Your task to perform on an android device: Open Google Chrome and click the shortcut for Amazon.com Image 0: 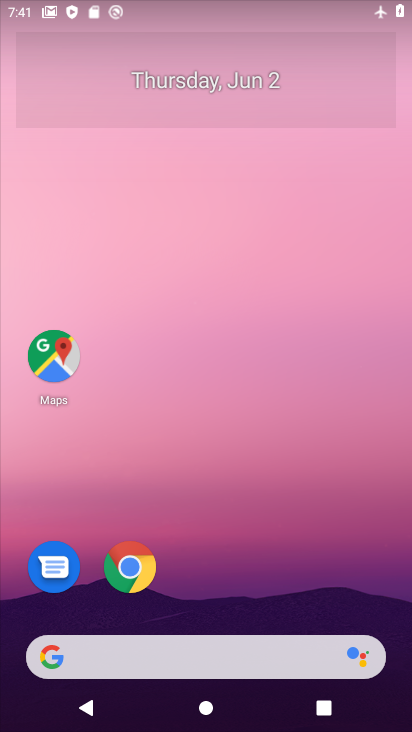
Step 0: click (130, 566)
Your task to perform on an android device: Open Google Chrome and click the shortcut for Amazon.com Image 1: 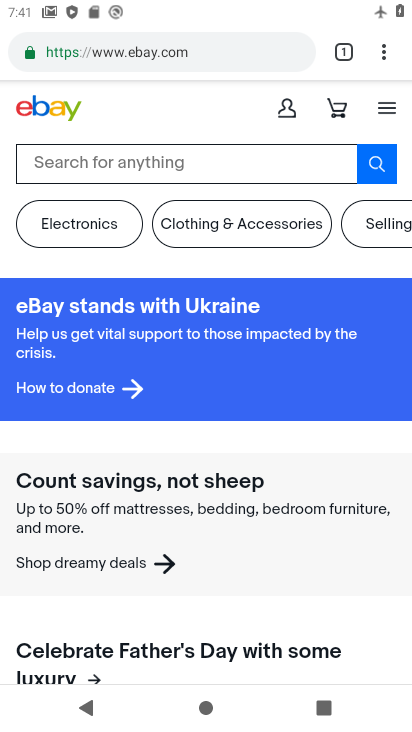
Step 1: click (262, 50)
Your task to perform on an android device: Open Google Chrome and click the shortcut for Amazon.com Image 2: 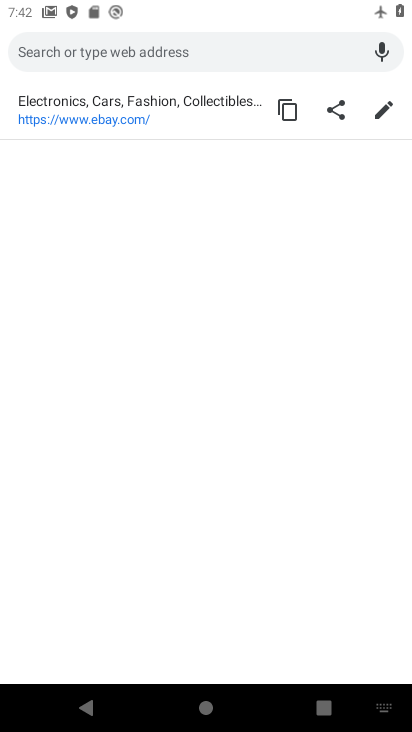
Step 2: type "Amazon.com"
Your task to perform on an android device: Open Google Chrome and click the shortcut for Amazon.com Image 3: 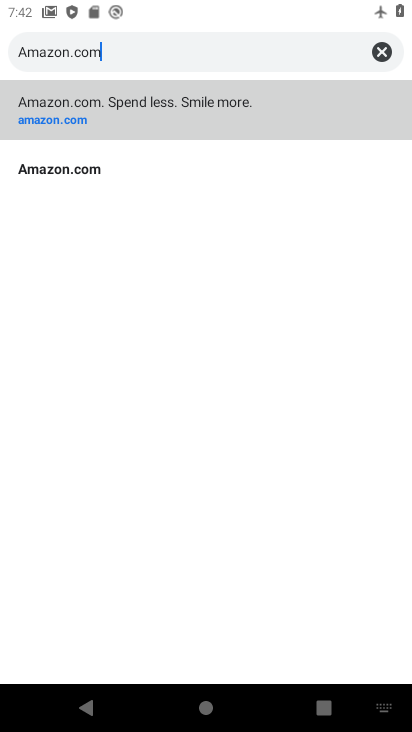
Step 3: click (94, 167)
Your task to perform on an android device: Open Google Chrome and click the shortcut for Amazon.com Image 4: 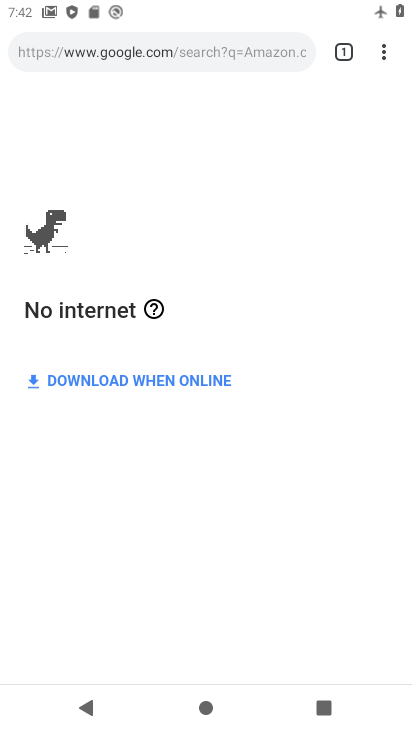
Step 4: task complete